Your task to perform on an android device: Search for "corsair k70" on ebay, select the first entry, and add it to the cart. Image 0: 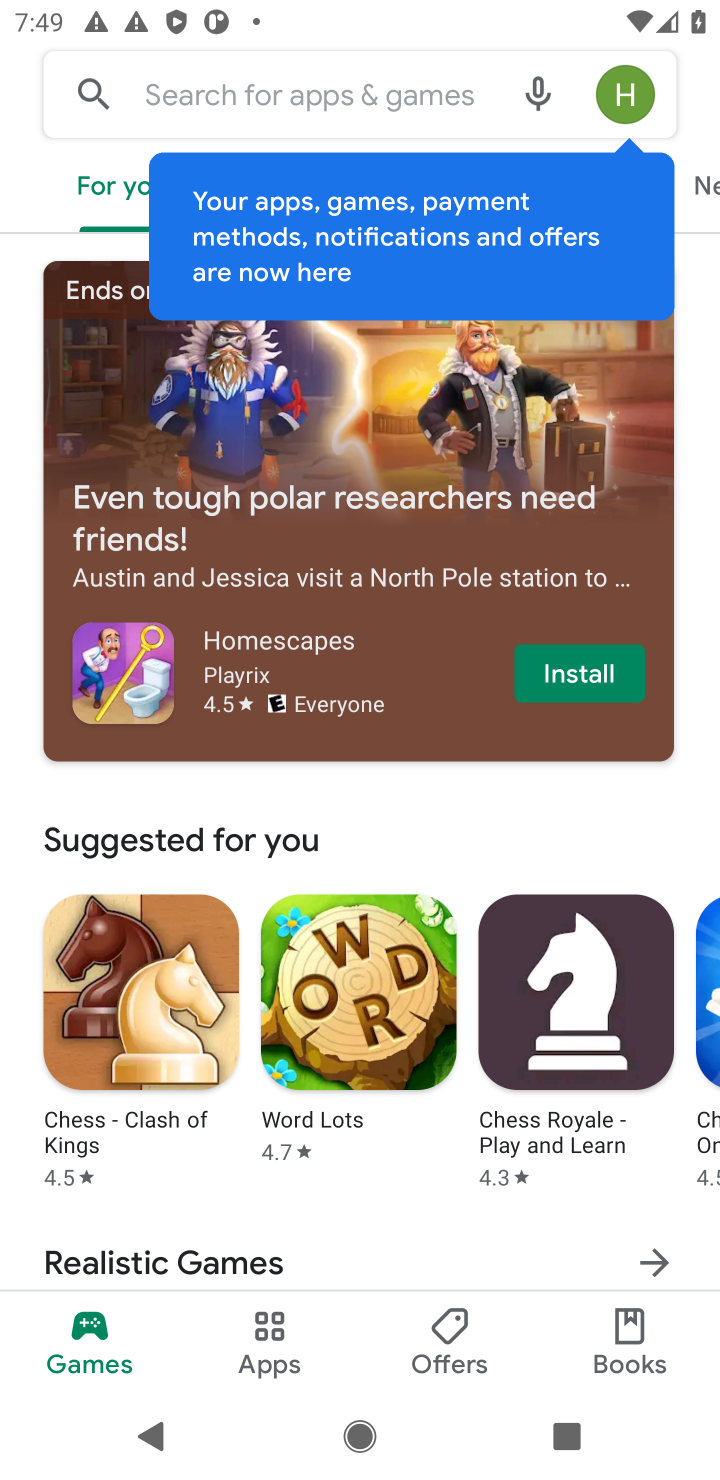
Step 0: press home button
Your task to perform on an android device: Search for "corsair k70" on ebay, select the first entry, and add it to the cart. Image 1: 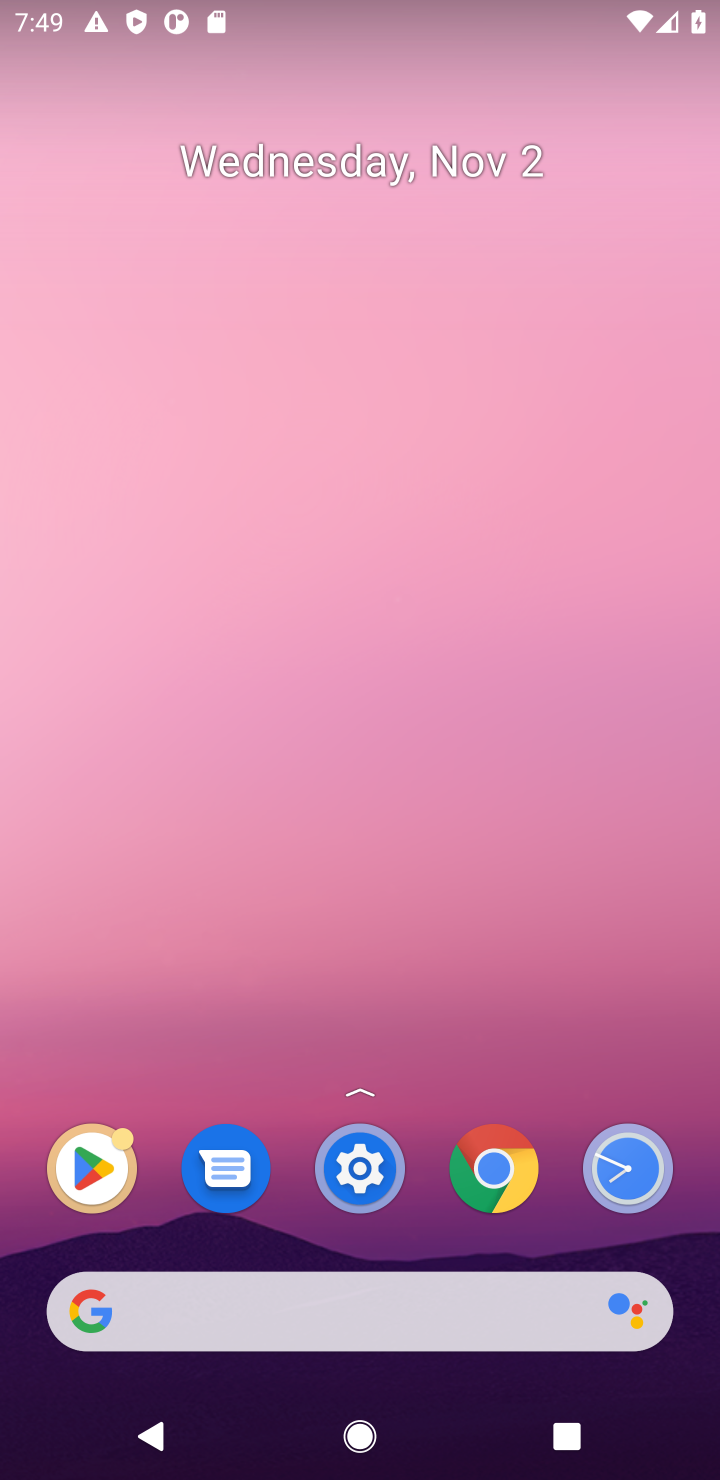
Step 1: click (497, 1167)
Your task to perform on an android device: Search for "corsair k70" on ebay, select the first entry, and add it to the cart. Image 2: 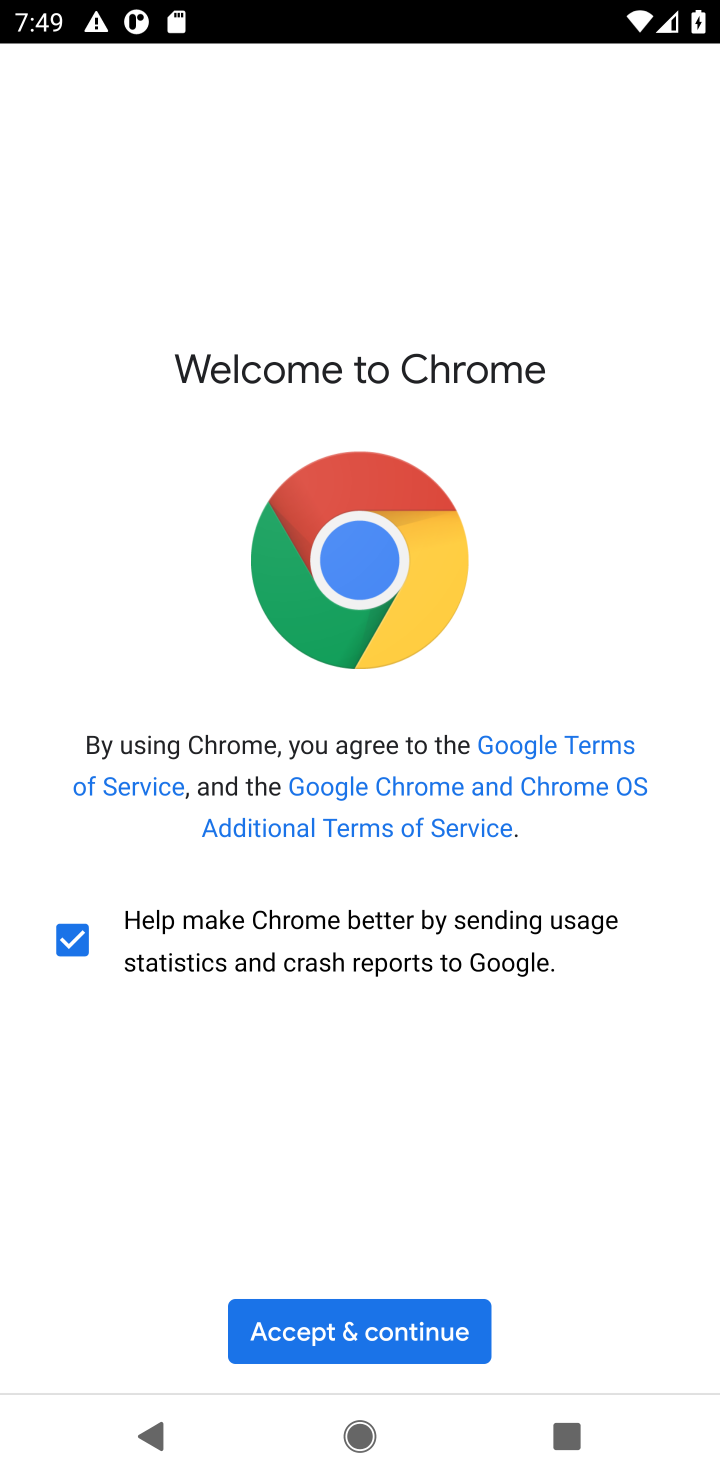
Step 2: click (358, 1328)
Your task to perform on an android device: Search for "corsair k70" on ebay, select the first entry, and add it to the cart. Image 3: 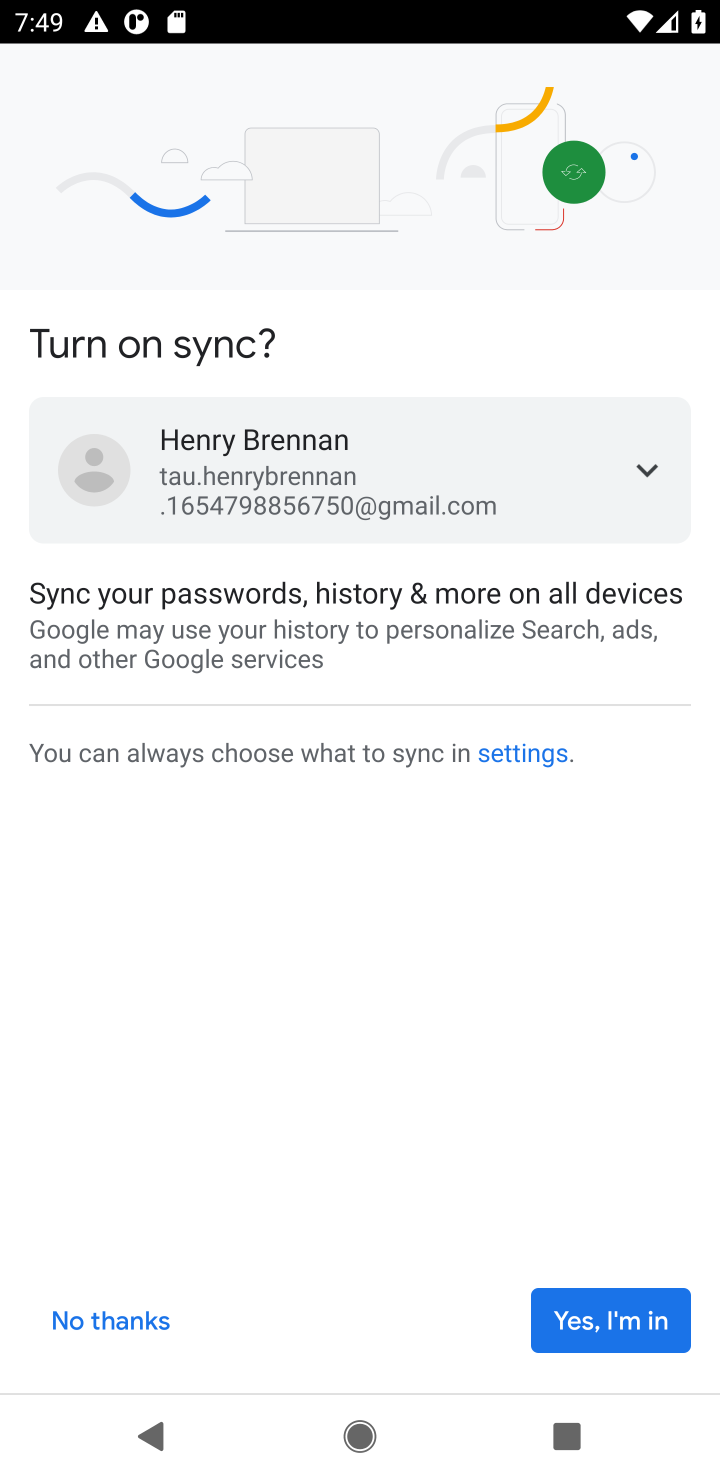
Step 3: click (621, 1317)
Your task to perform on an android device: Search for "corsair k70" on ebay, select the first entry, and add it to the cart. Image 4: 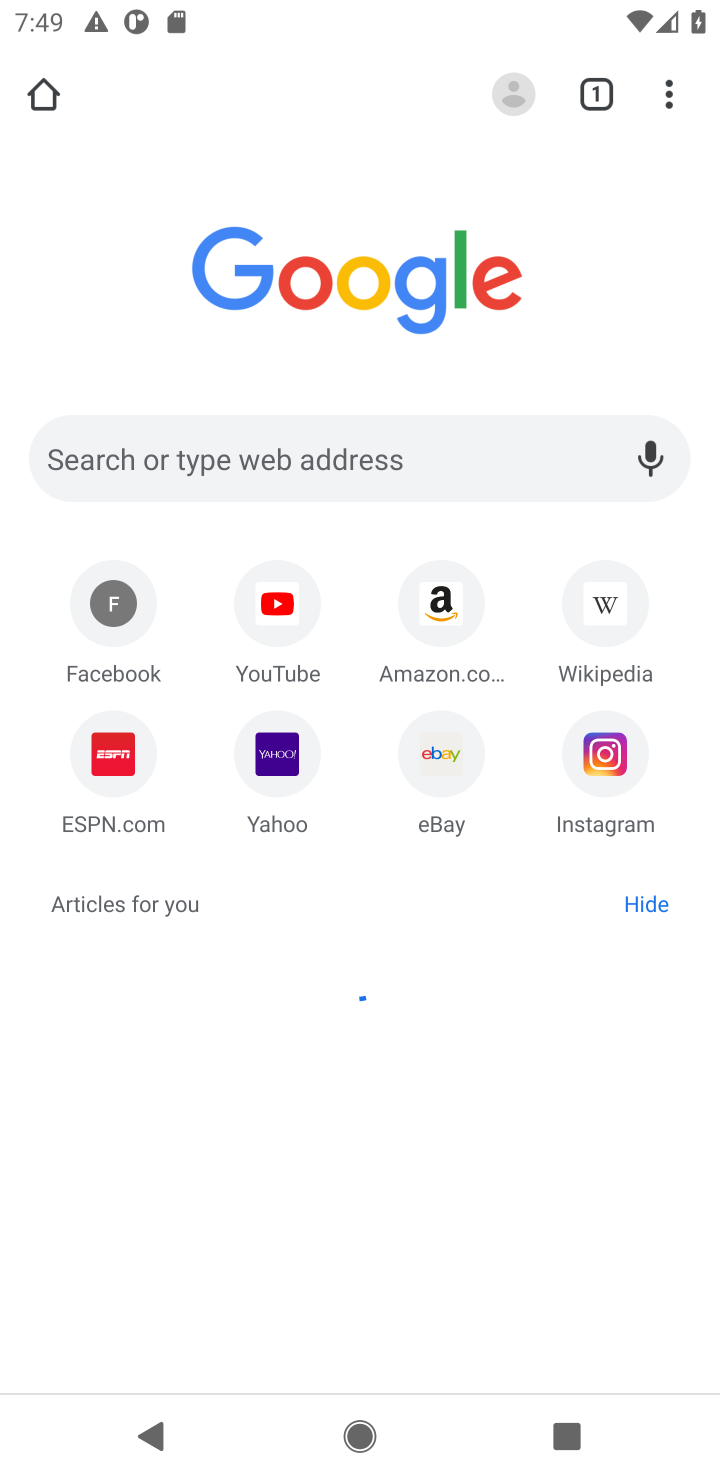
Step 4: click (353, 458)
Your task to perform on an android device: Search for "corsair k70" on ebay, select the first entry, and add it to the cart. Image 5: 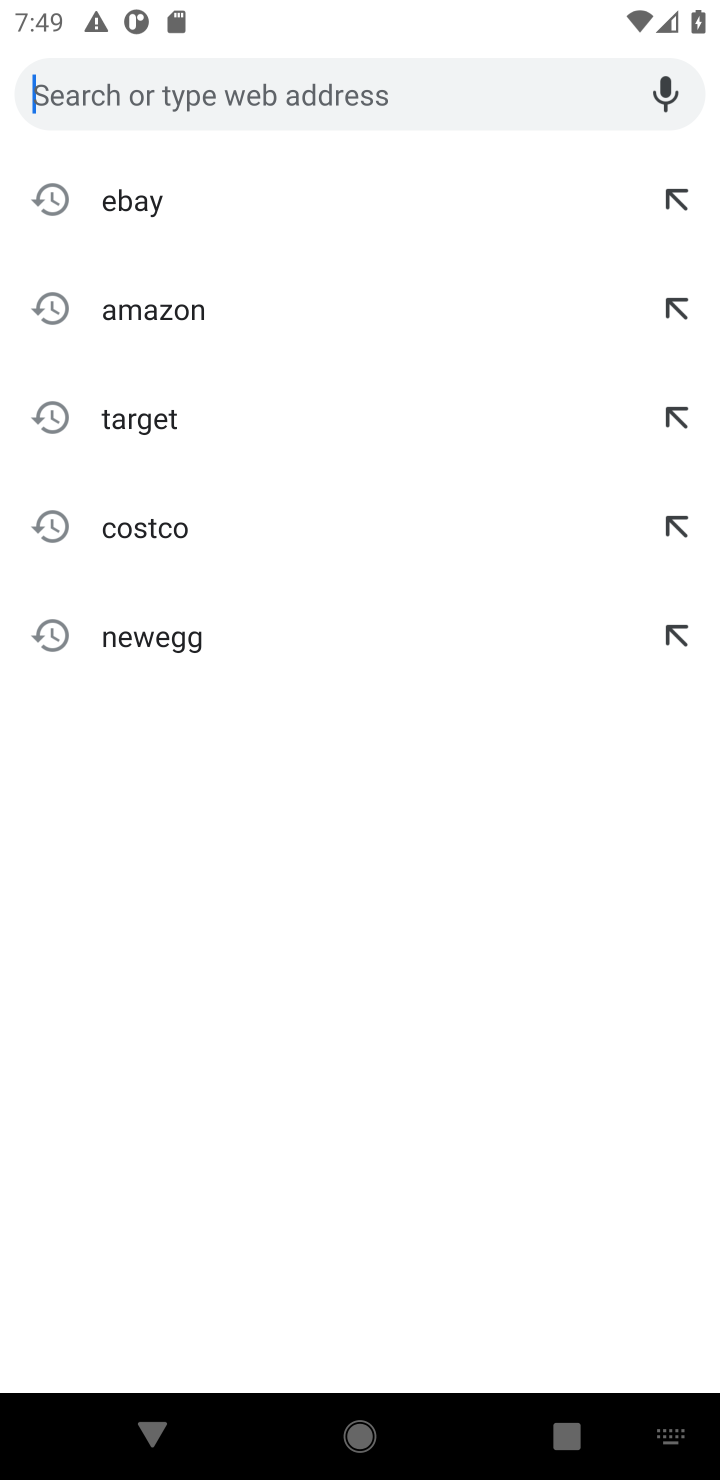
Step 5: type "ebay"
Your task to perform on an android device: Search for "corsair k70" on ebay, select the first entry, and add it to the cart. Image 6: 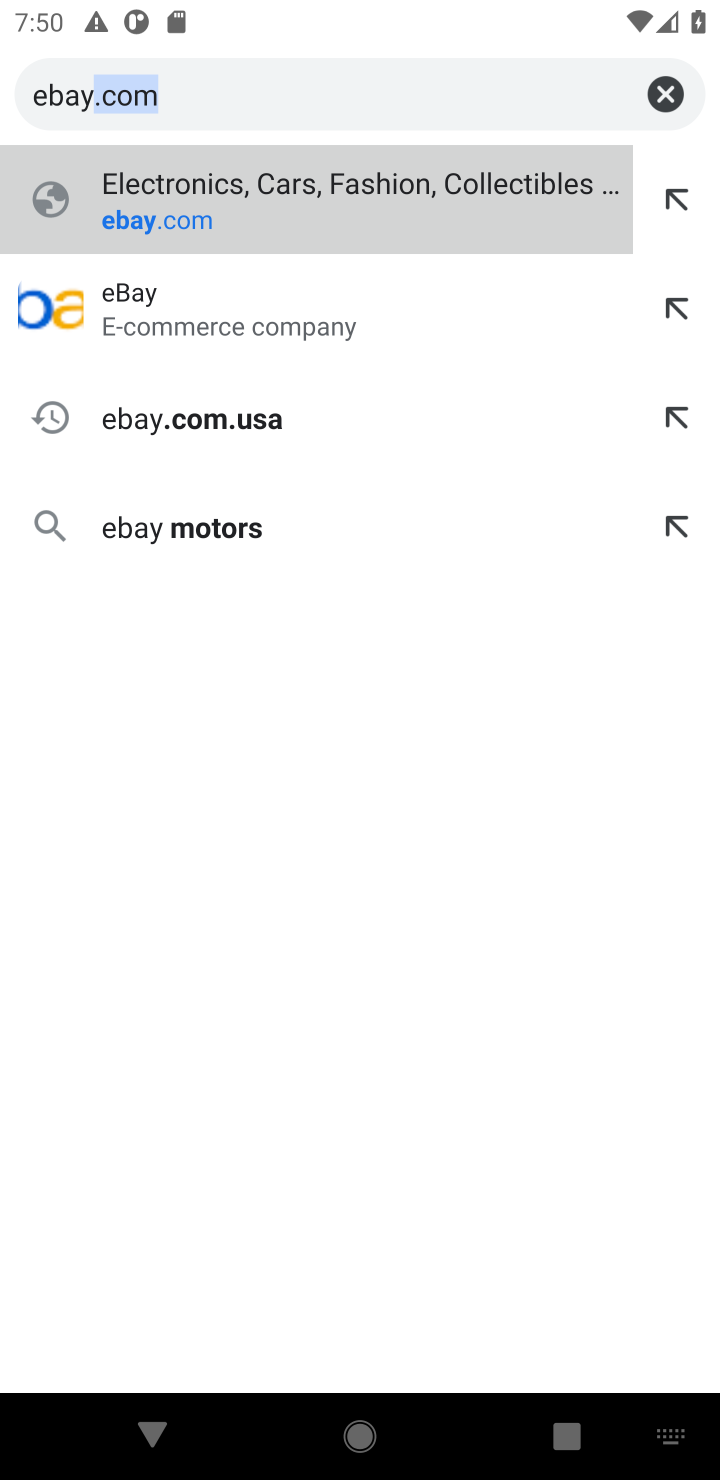
Step 6: click (162, 305)
Your task to perform on an android device: Search for "corsair k70" on ebay, select the first entry, and add it to the cart. Image 7: 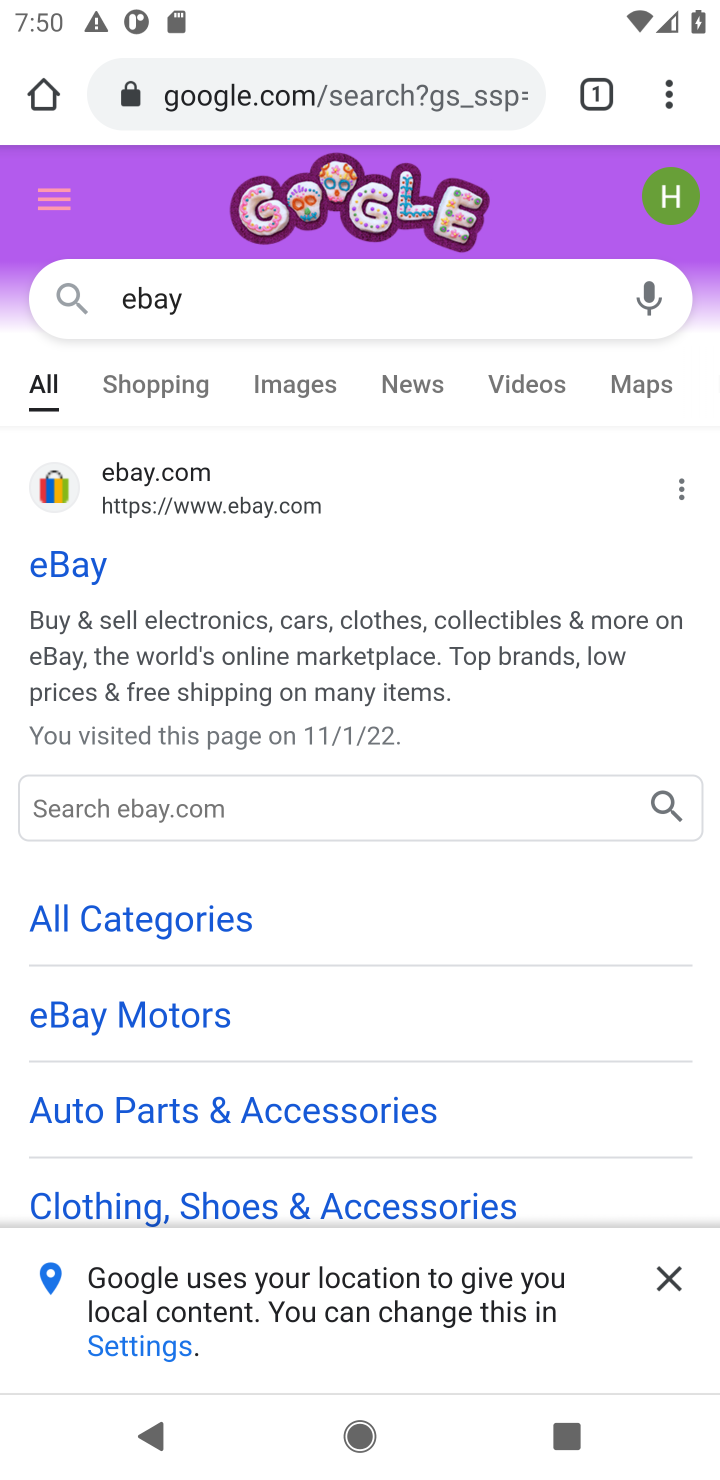
Step 7: click (209, 540)
Your task to perform on an android device: Search for "corsair k70" on ebay, select the first entry, and add it to the cart. Image 8: 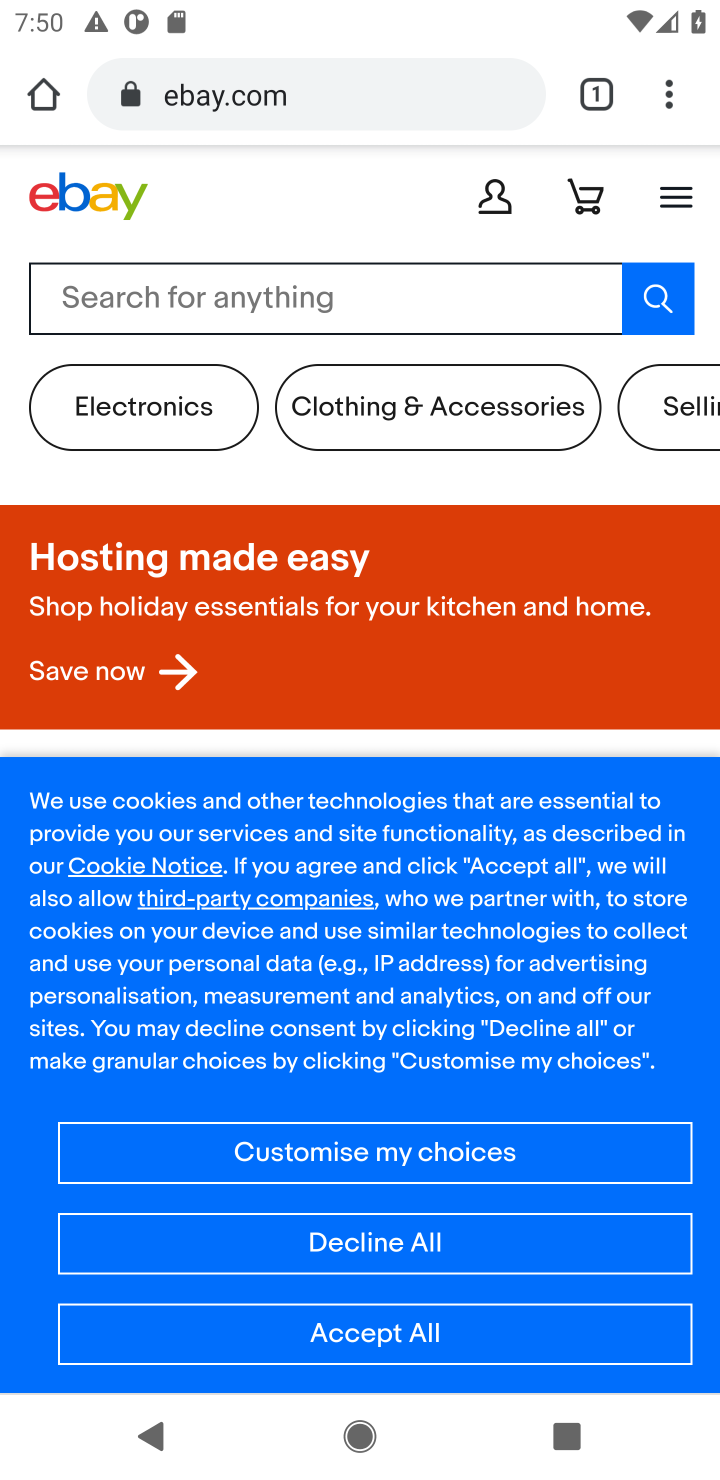
Step 8: click (259, 295)
Your task to perform on an android device: Search for "corsair k70" on ebay, select the first entry, and add it to the cart. Image 9: 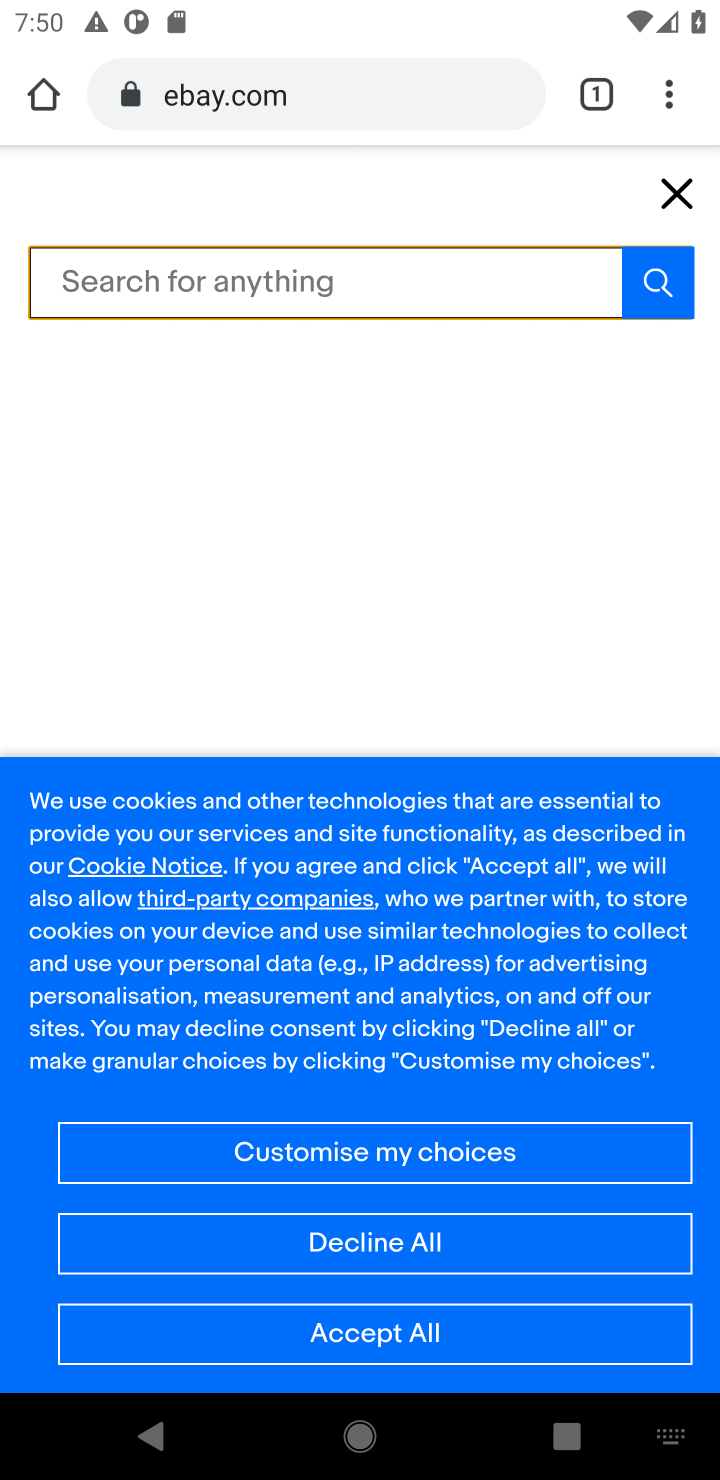
Step 9: click (402, 1333)
Your task to perform on an android device: Search for "corsair k70" on ebay, select the first entry, and add it to the cart. Image 10: 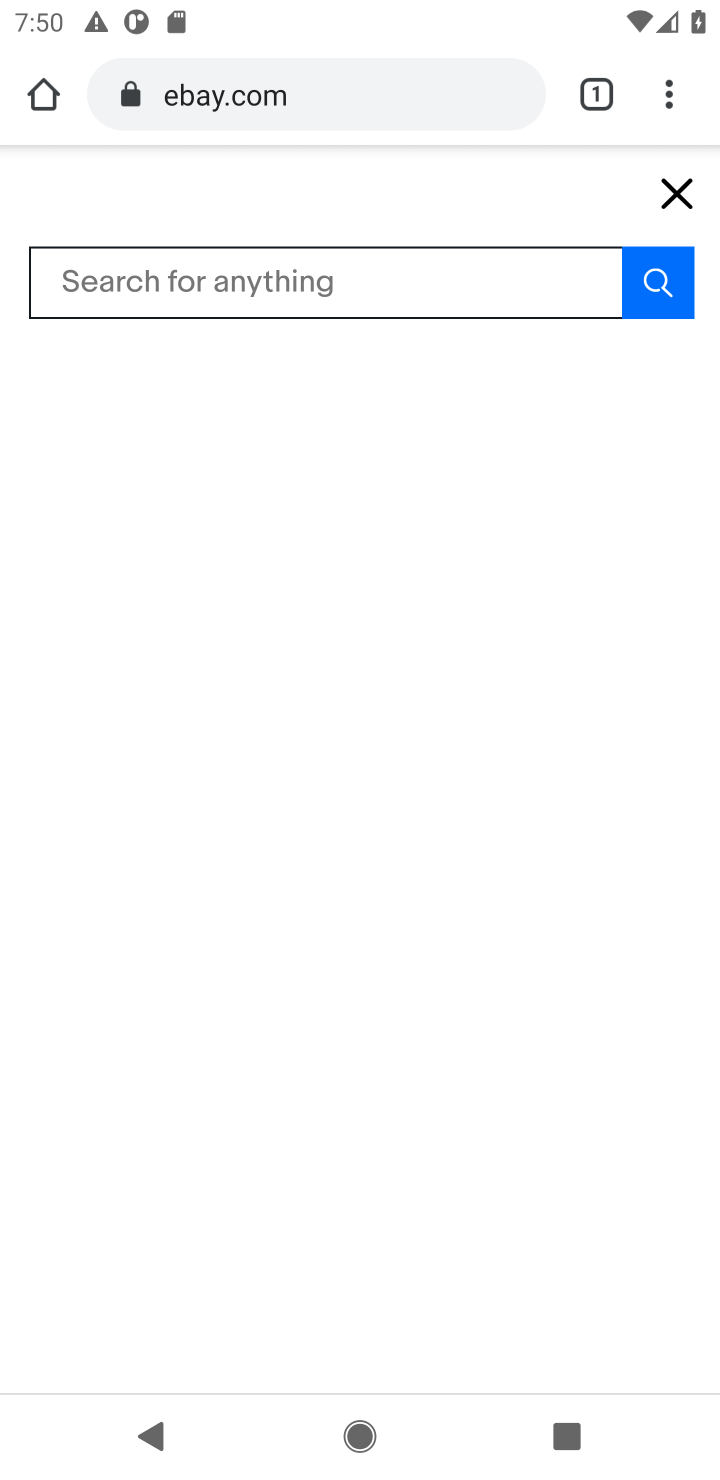
Step 10: click (365, 280)
Your task to perform on an android device: Search for "corsair k70" on ebay, select the first entry, and add it to the cart. Image 11: 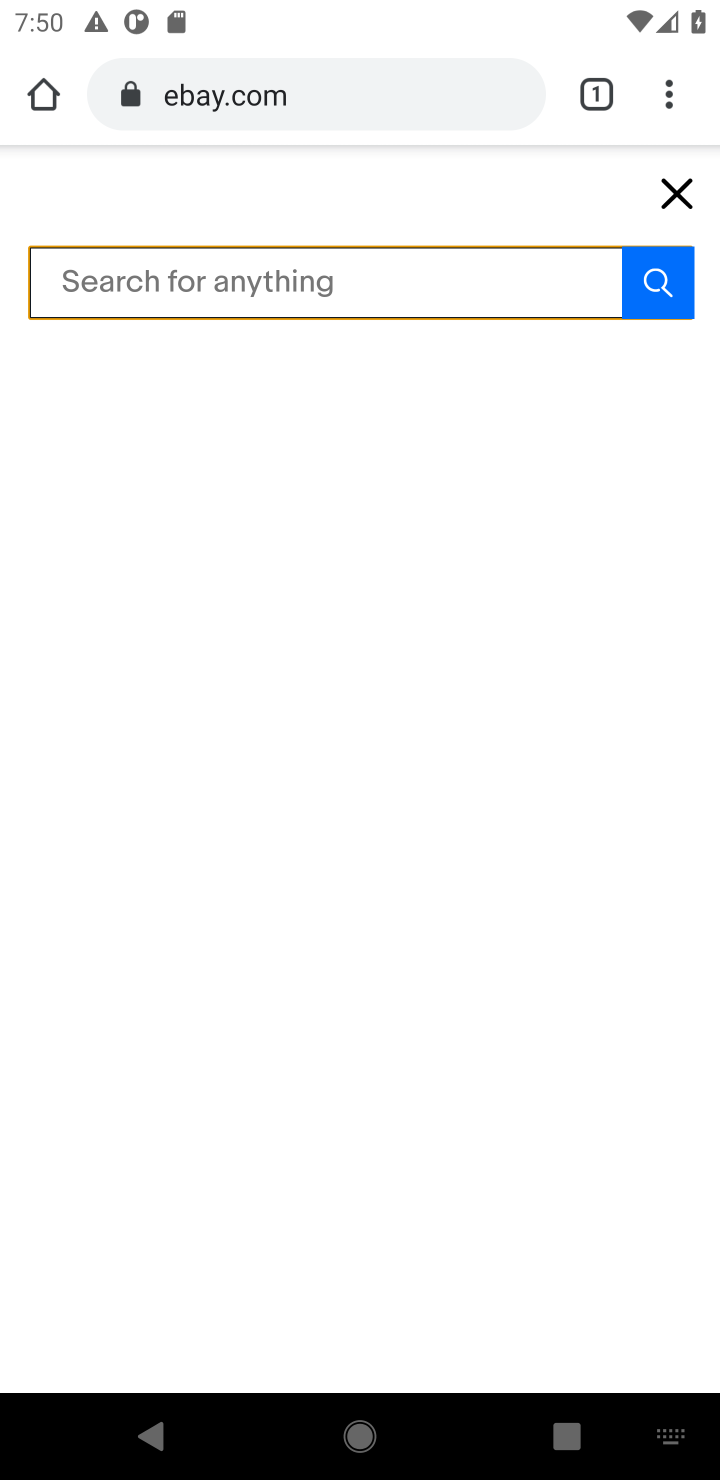
Step 11: type "corsair k70"
Your task to perform on an android device: Search for "corsair k70" on ebay, select the first entry, and add it to the cart. Image 12: 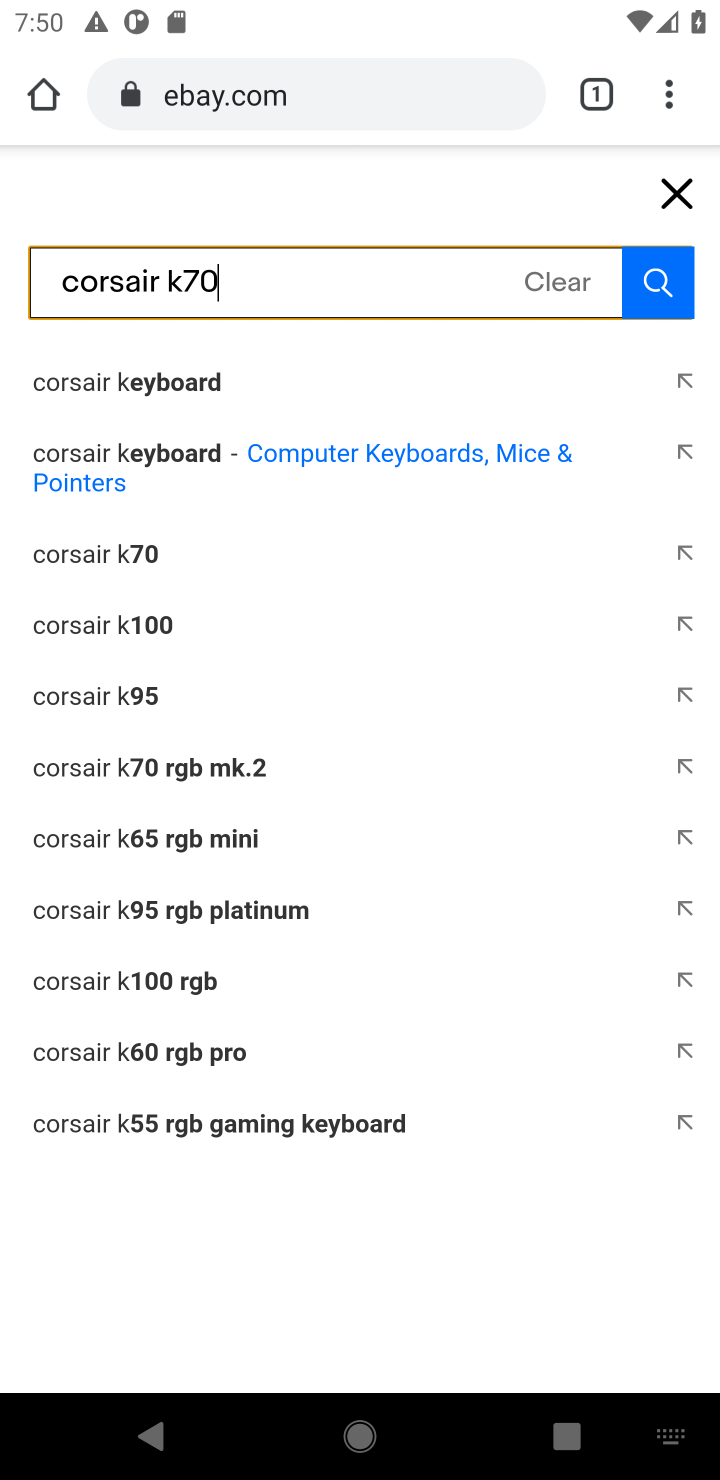
Step 12: click (660, 288)
Your task to perform on an android device: Search for "corsair k70" on ebay, select the first entry, and add it to the cart. Image 13: 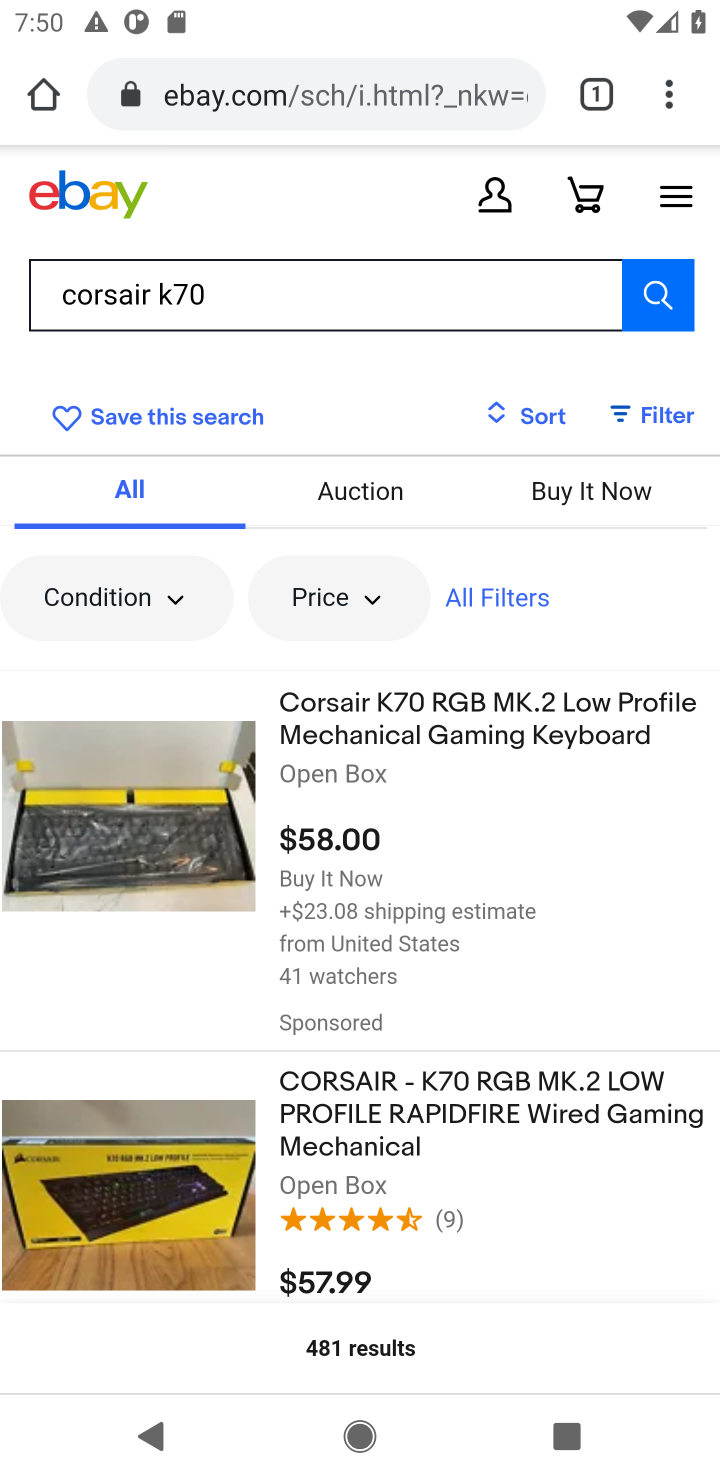
Step 13: click (429, 721)
Your task to perform on an android device: Search for "corsair k70" on ebay, select the first entry, and add it to the cart. Image 14: 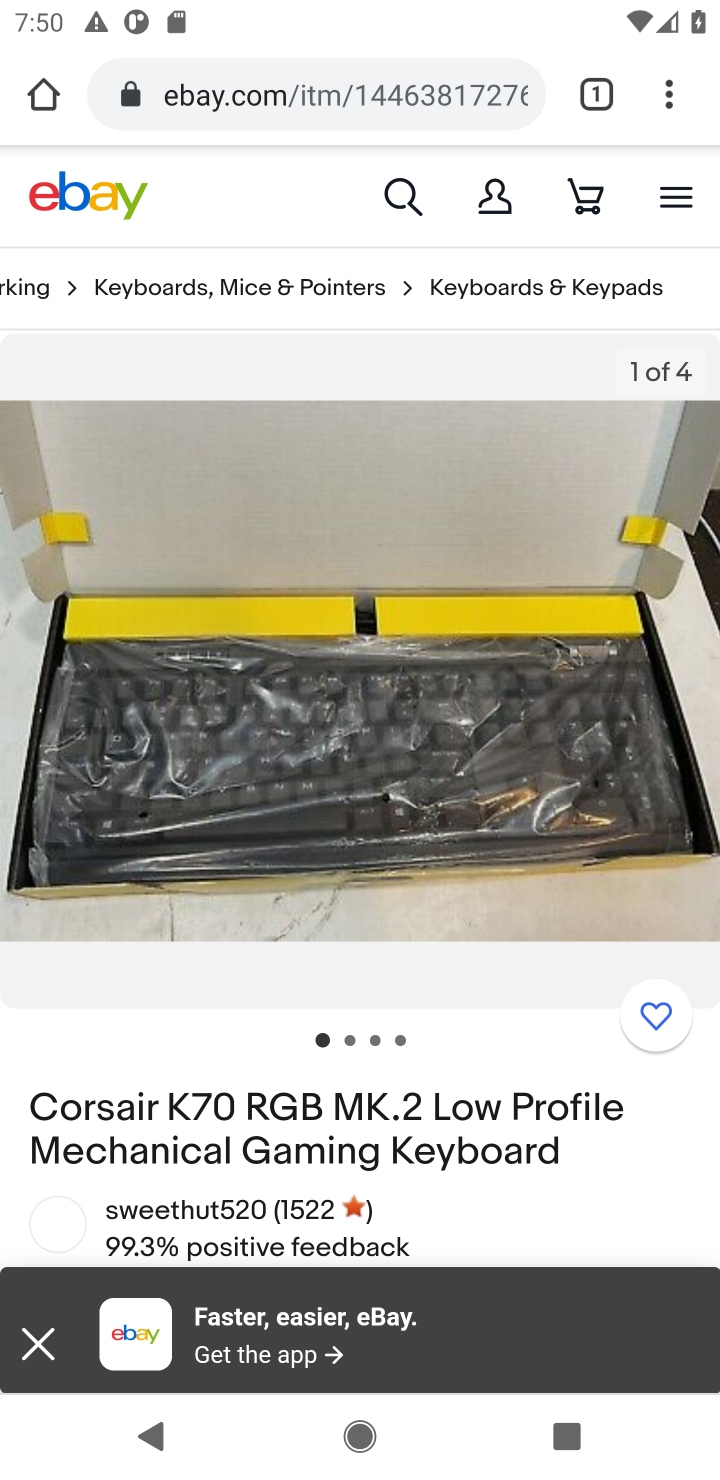
Step 14: drag from (507, 1281) to (514, 715)
Your task to perform on an android device: Search for "corsair k70" on ebay, select the first entry, and add it to the cart. Image 15: 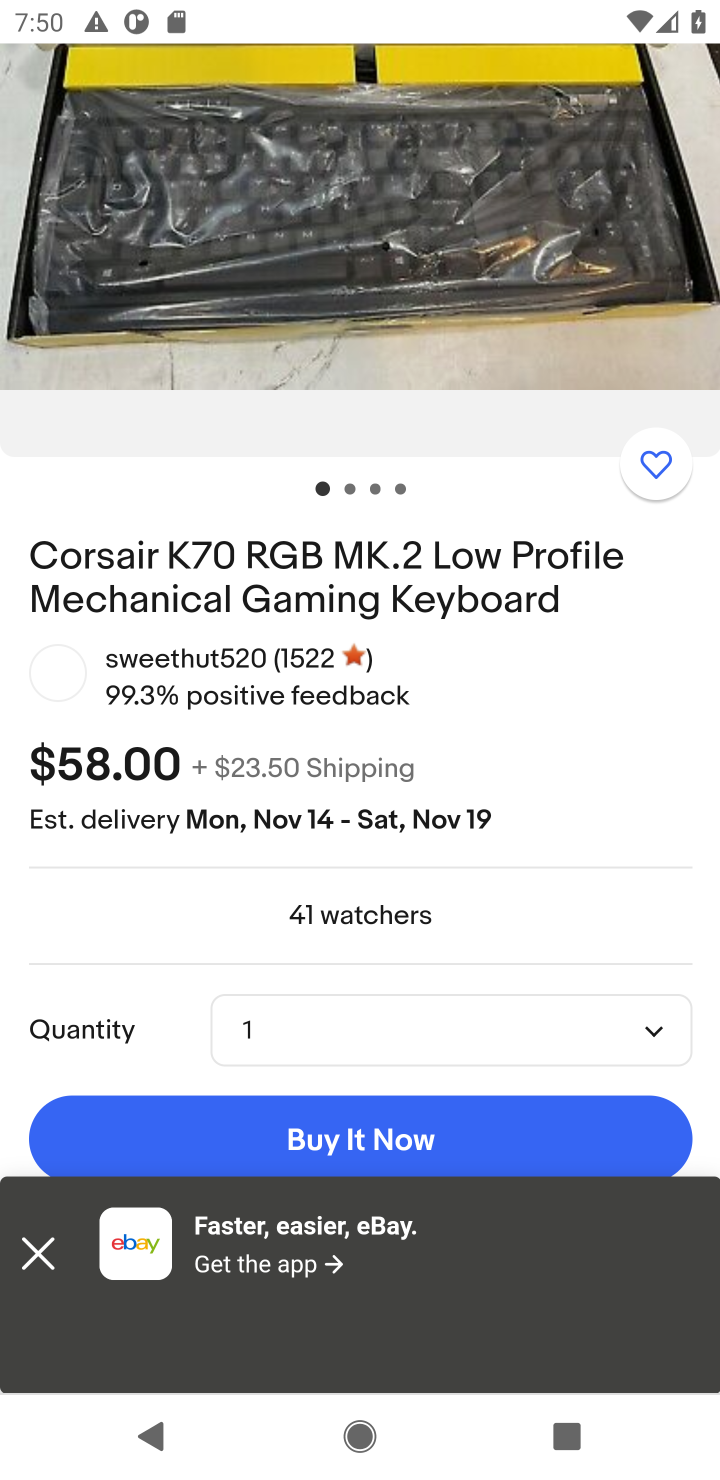
Step 15: drag from (501, 765) to (520, 470)
Your task to perform on an android device: Search for "corsair k70" on ebay, select the first entry, and add it to the cart. Image 16: 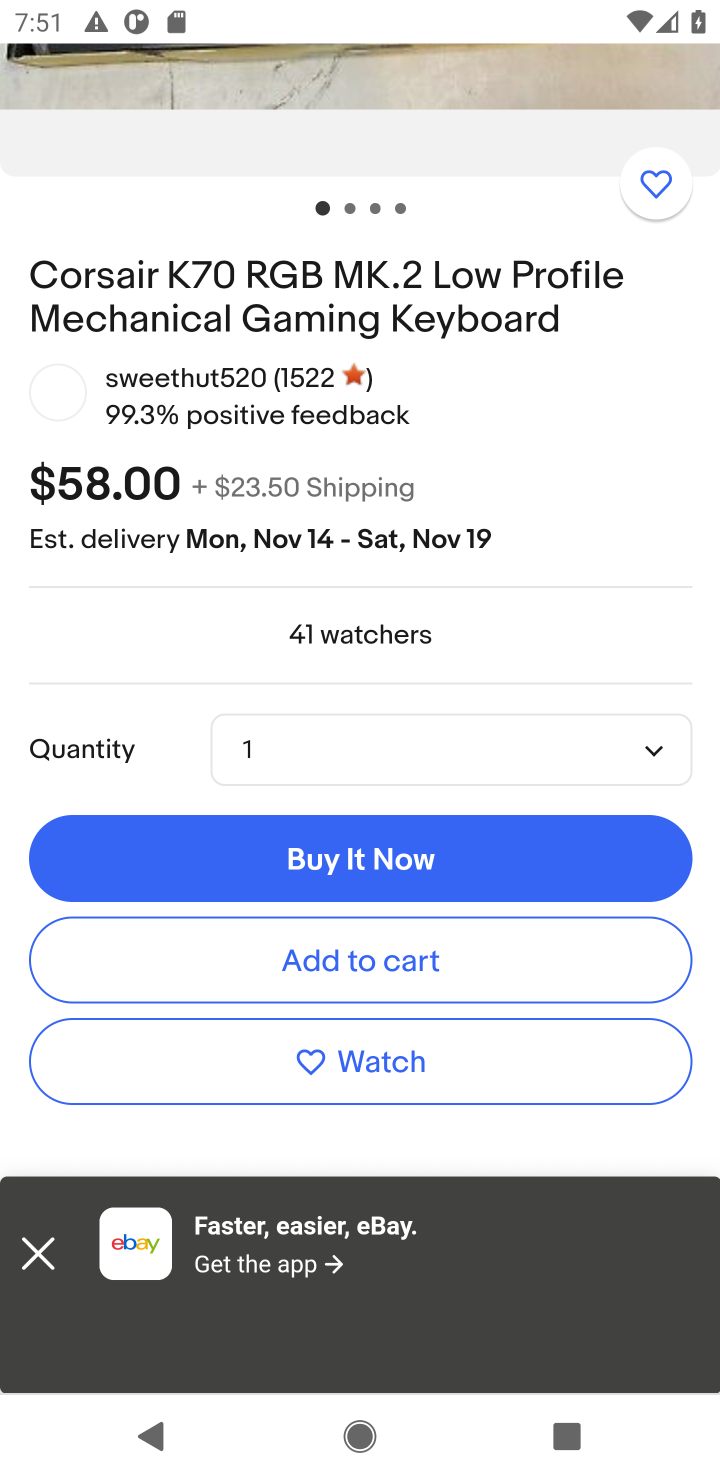
Step 16: click (392, 965)
Your task to perform on an android device: Search for "corsair k70" on ebay, select the first entry, and add it to the cart. Image 17: 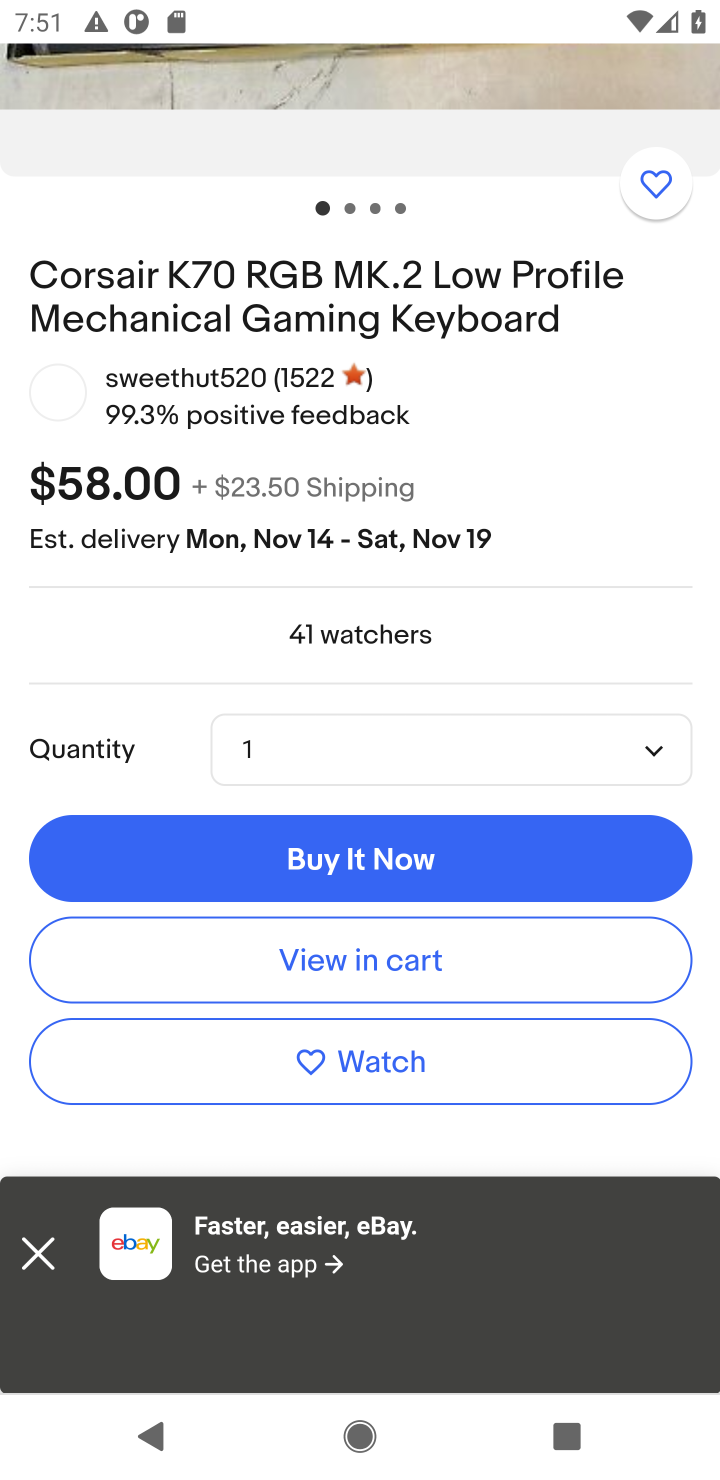
Step 17: click (392, 965)
Your task to perform on an android device: Search for "corsair k70" on ebay, select the first entry, and add it to the cart. Image 18: 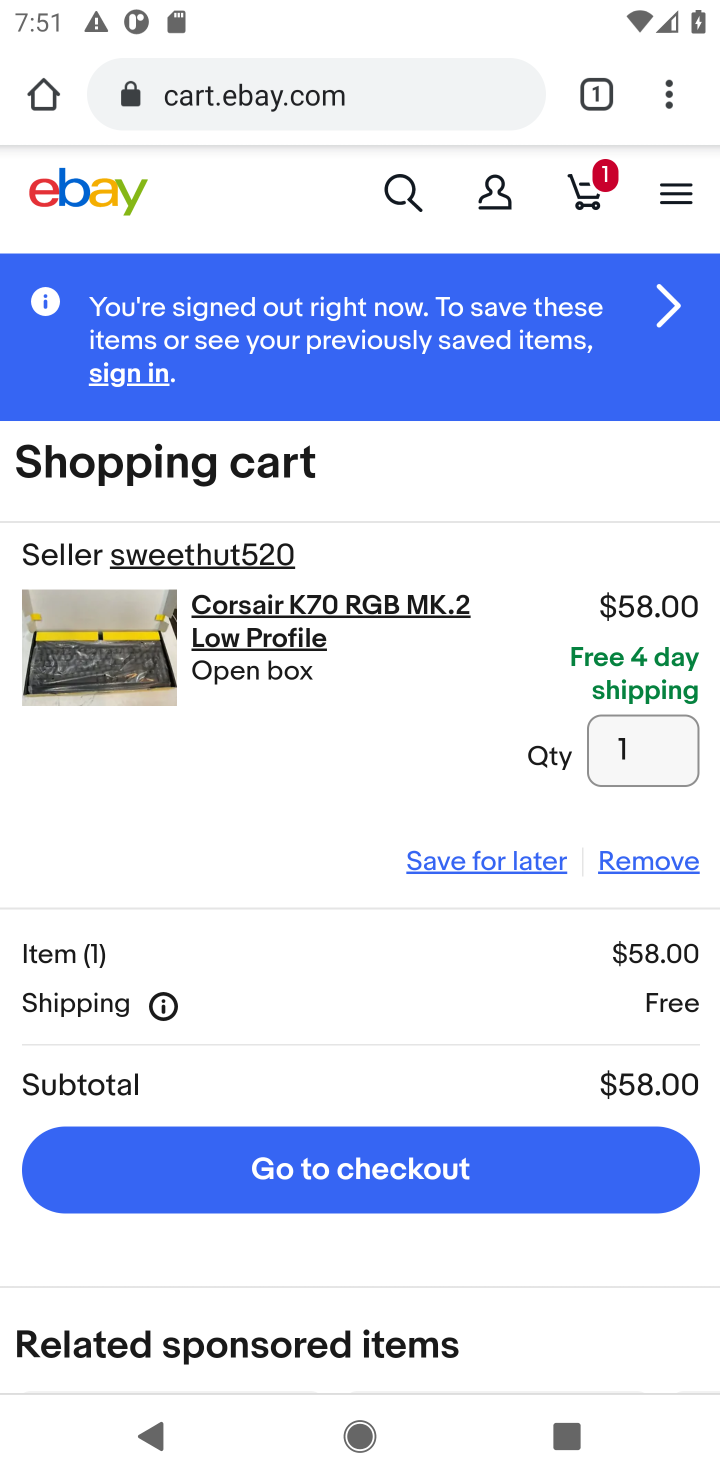
Step 18: task complete